Your task to perform on an android device: toggle improve location accuracy Image 0: 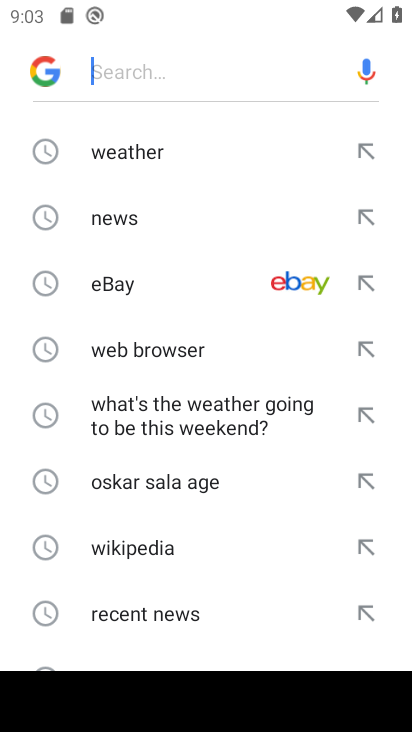
Step 0: press home button
Your task to perform on an android device: toggle improve location accuracy Image 1: 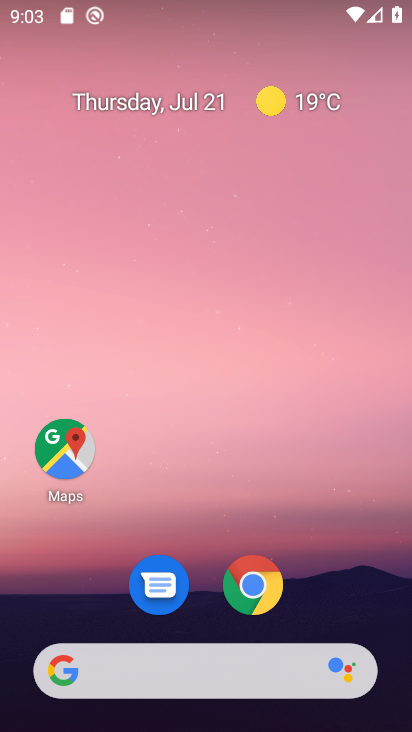
Step 1: drag from (331, 585) to (341, 55)
Your task to perform on an android device: toggle improve location accuracy Image 2: 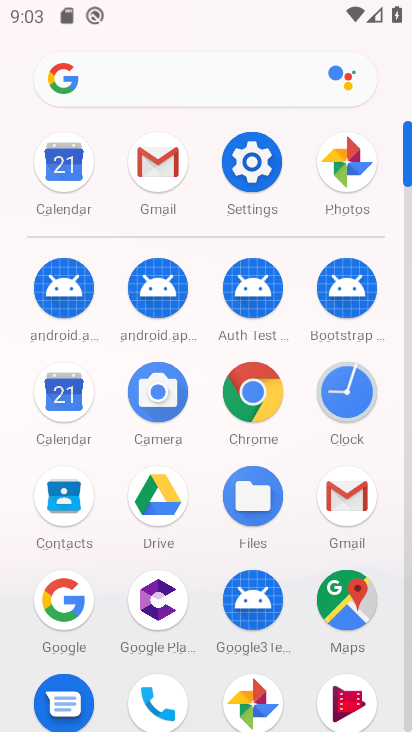
Step 2: click (260, 165)
Your task to perform on an android device: toggle improve location accuracy Image 3: 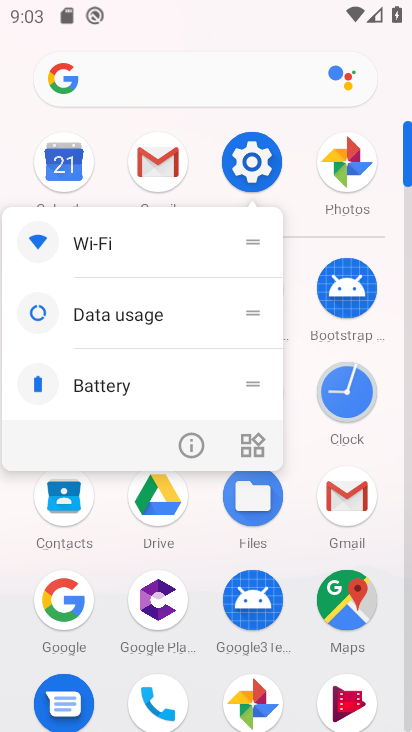
Step 3: click (260, 163)
Your task to perform on an android device: toggle improve location accuracy Image 4: 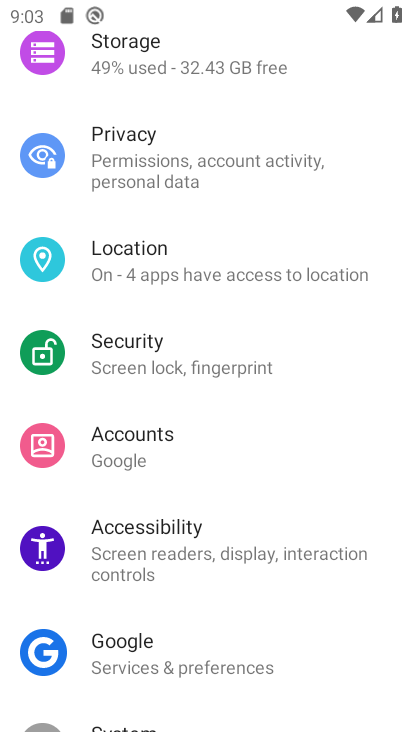
Step 4: click (228, 259)
Your task to perform on an android device: toggle improve location accuracy Image 5: 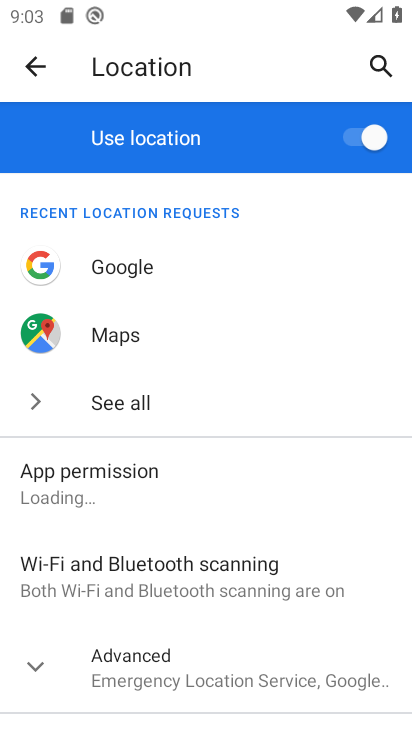
Step 5: drag from (226, 498) to (277, 183)
Your task to perform on an android device: toggle improve location accuracy Image 6: 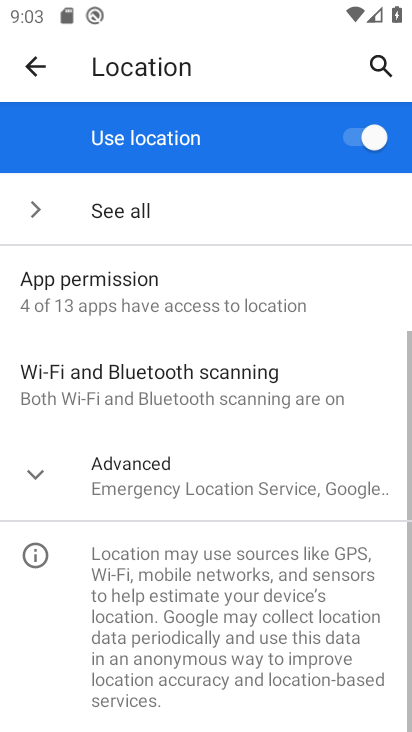
Step 6: click (35, 469)
Your task to perform on an android device: toggle improve location accuracy Image 7: 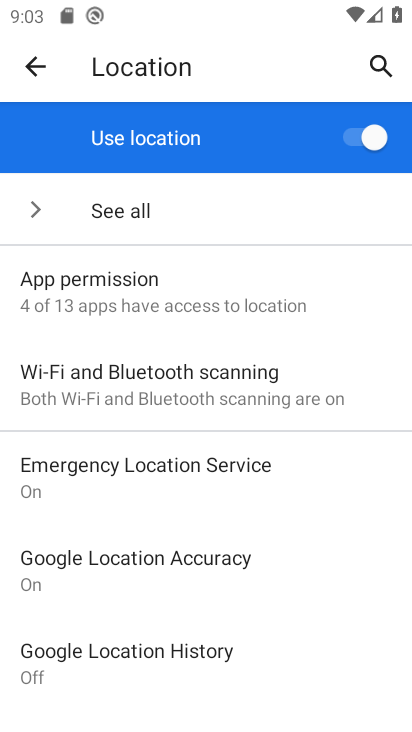
Step 7: click (147, 570)
Your task to perform on an android device: toggle improve location accuracy Image 8: 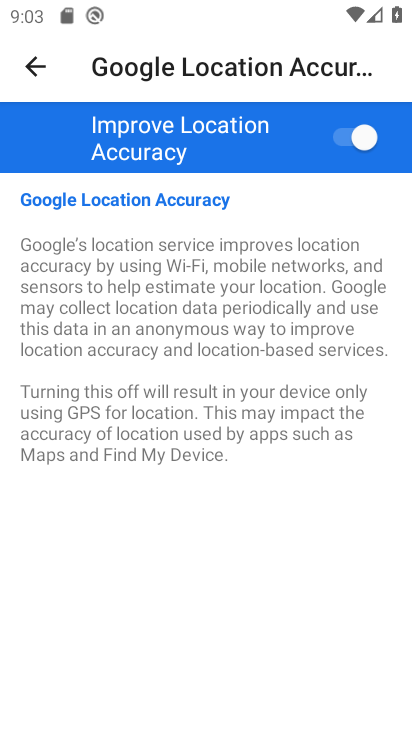
Step 8: click (359, 139)
Your task to perform on an android device: toggle improve location accuracy Image 9: 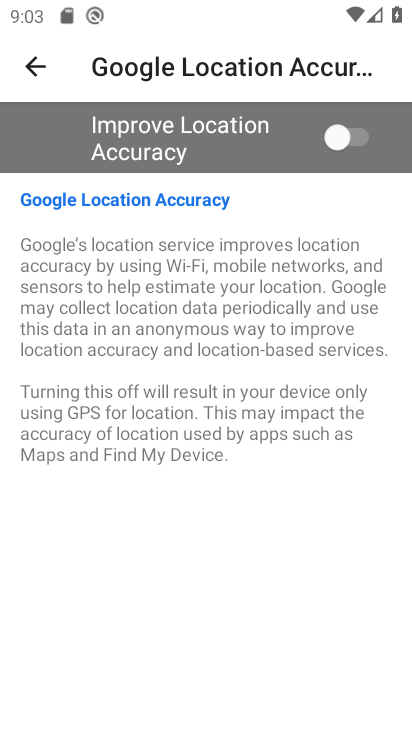
Step 9: task complete